Your task to perform on an android device: check android version Image 0: 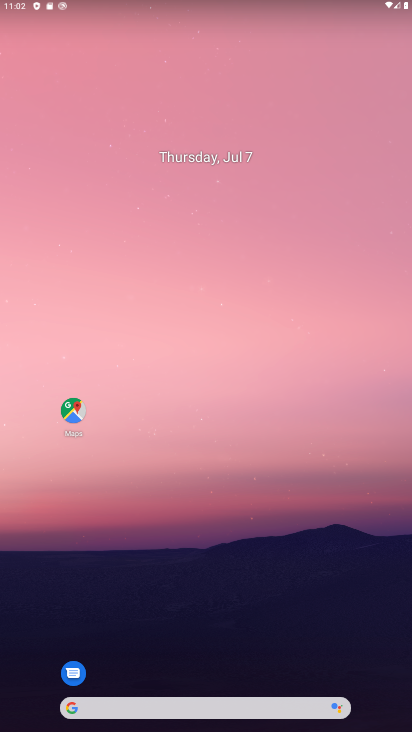
Step 0: drag from (189, 657) to (202, 134)
Your task to perform on an android device: check android version Image 1: 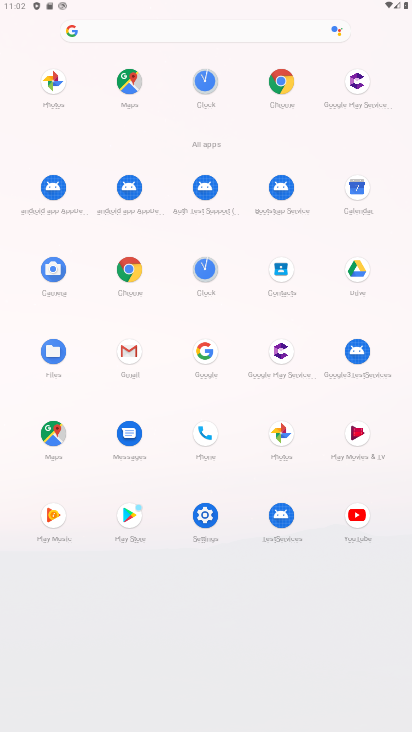
Step 1: click (212, 517)
Your task to perform on an android device: check android version Image 2: 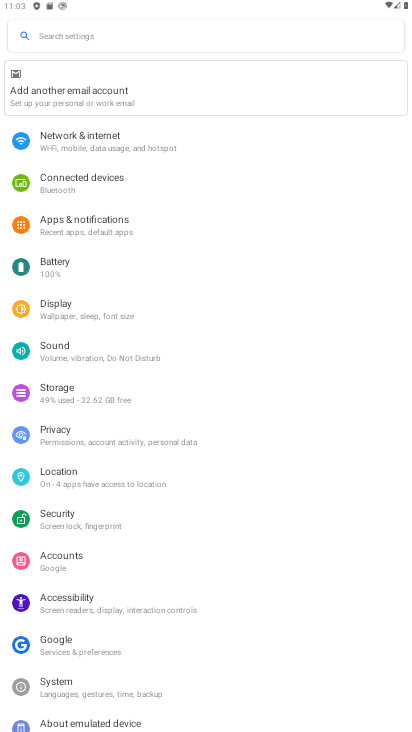
Step 2: drag from (127, 672) to (116, 385)
Your task to perform on an android device: check android version Image 3: 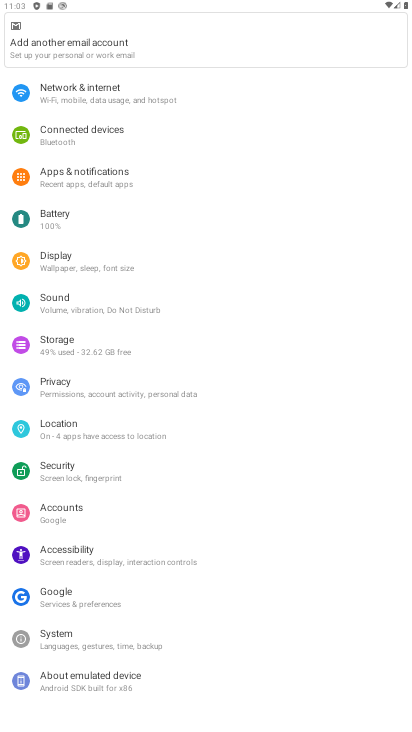
Step 3: click (126, 682)
Your task to perform on an android device: check android version Image 4: 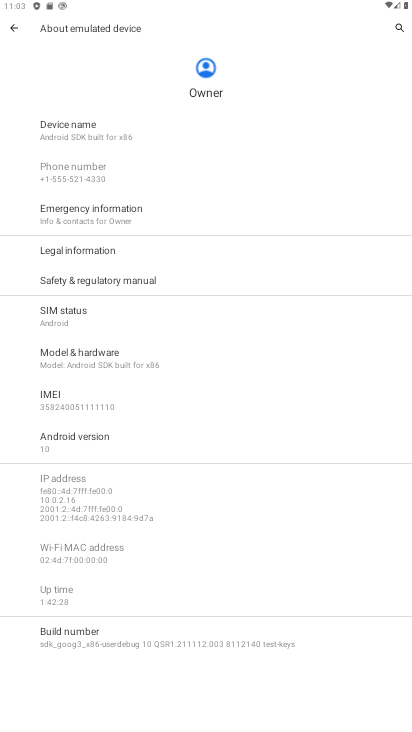
Step 4: click (99, 449)
Your task to perform on an android device: check android version Image 5: 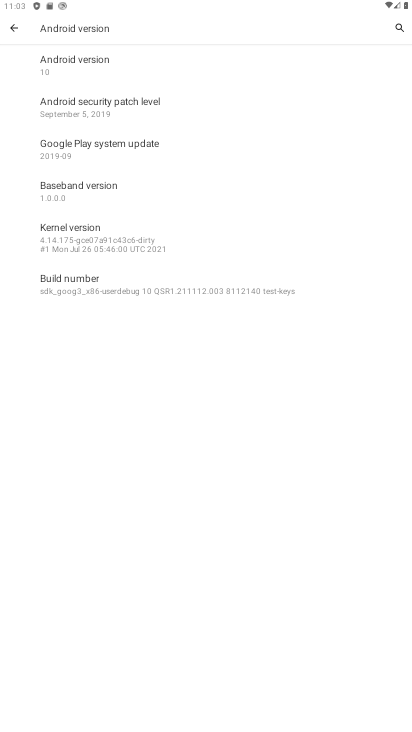
Step 5: task complete